Your task to perform on an android device: Open Android settings Image 0: 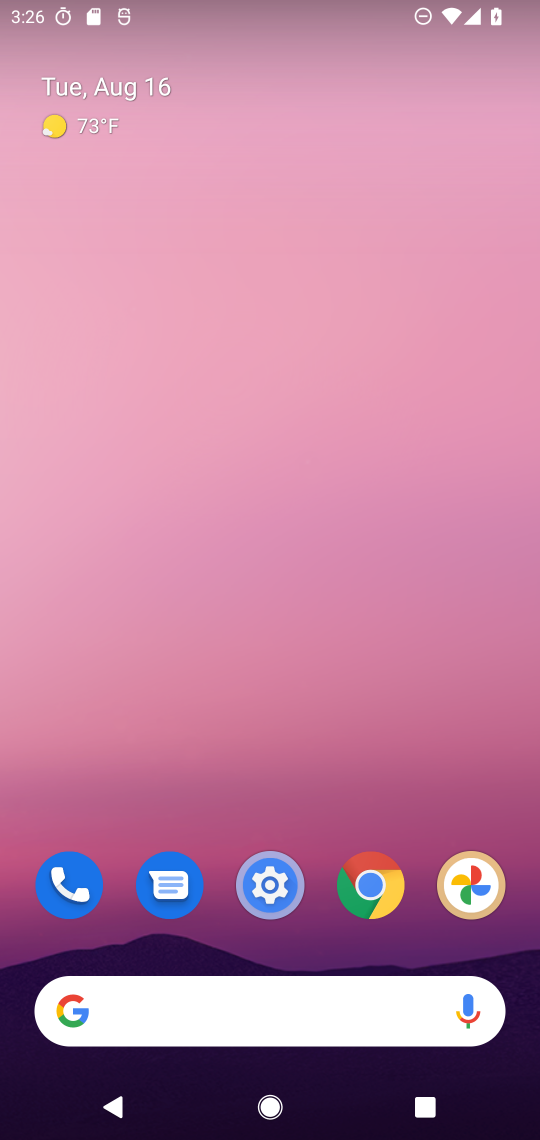
Step 0: drag from (179, 959) to (186, 181)
Your task to perform on an android device: Open Android settings Image 1: 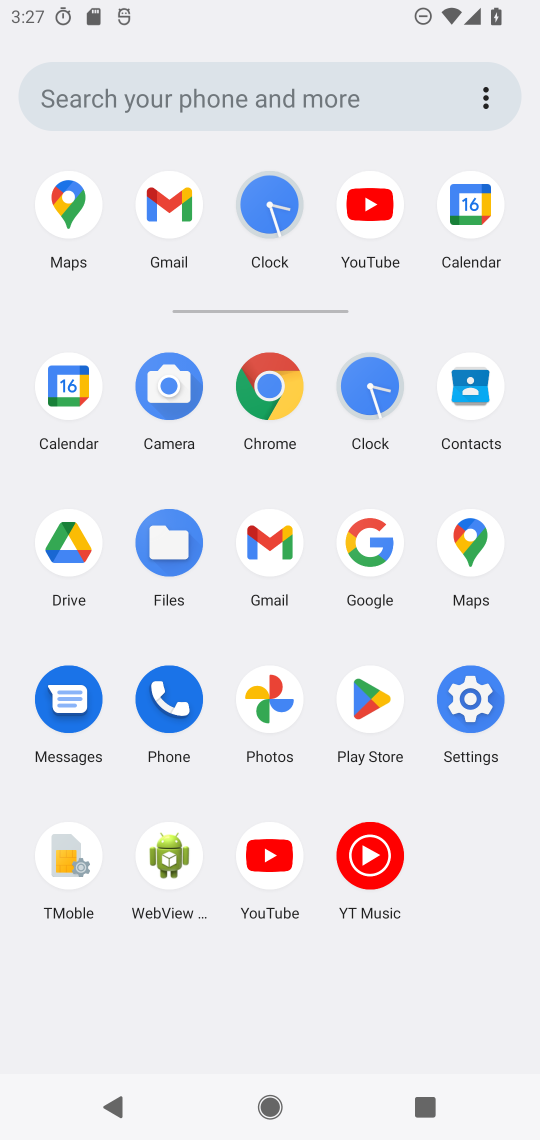
Step 1: click (495, 700)
Your task to perform on an android device: Open Android settings Image 2: 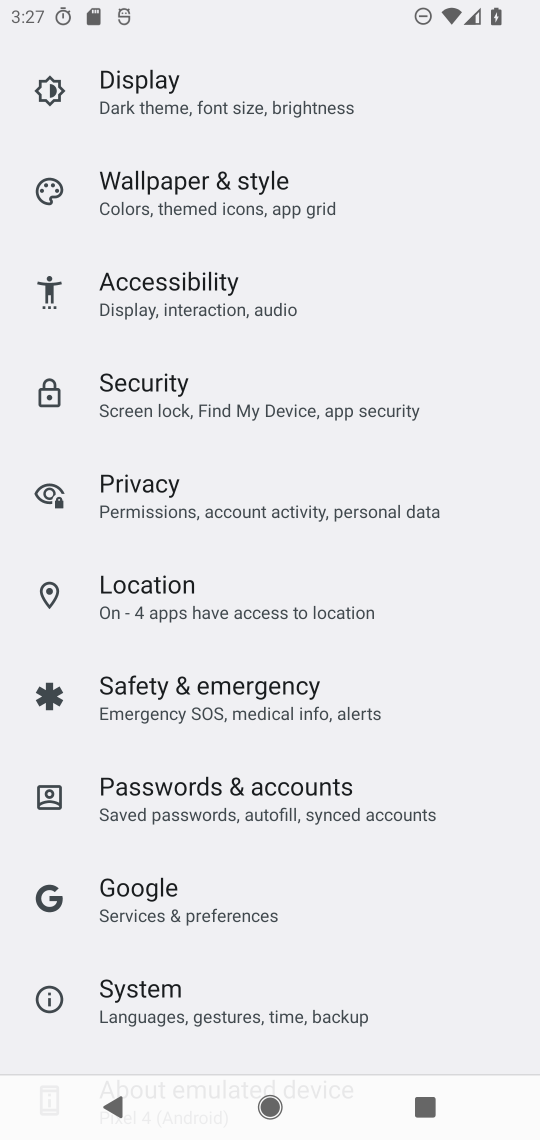
Step 2: task complete